Your task to perform on an android device: What's the news in Puerto Rico? Image 0: 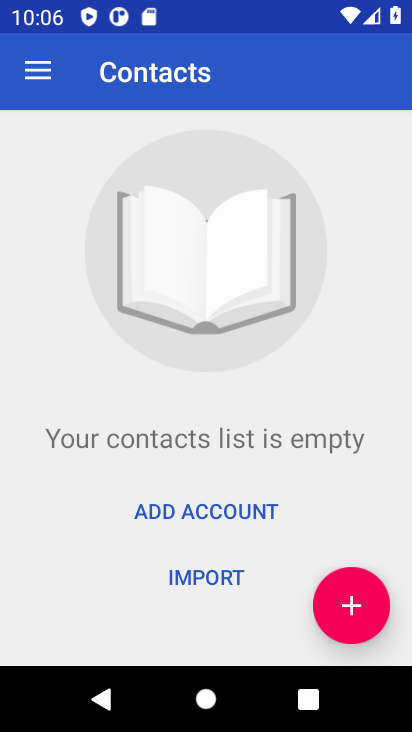
Step 0: press home button
Your task to perform on an android device: What's the news in Puerto Rico? Image 1: 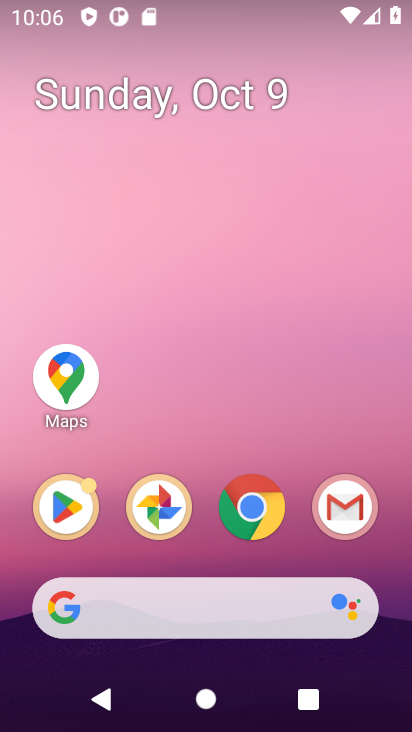
Step 1: drag from (218, 558) to (223, 96)
Your task to perform on an android device: What's the news in Puerto Rico? Image 2: 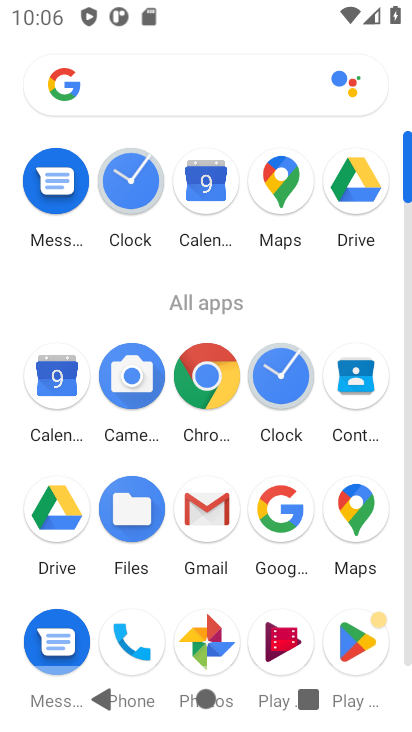
Step 2: click (215, 376)
Your task to perform on an android device: What's the news in Puerto Rico? Image 3: 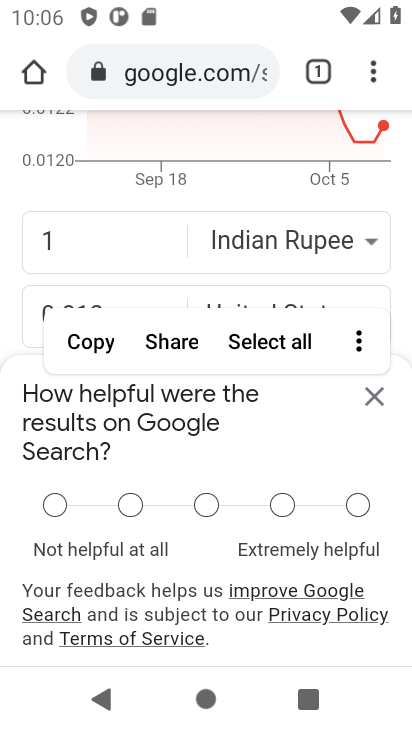
Step 3: drag from (258, 180) to (183, 543)
Your task to perform on an android device: What's the news in Puerto Rico? Image 4: 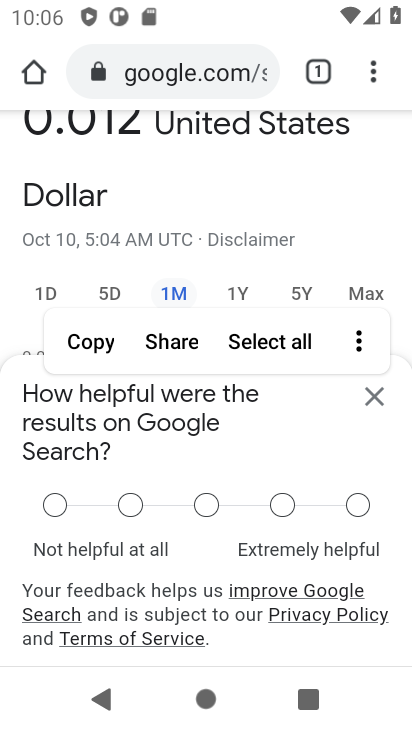
Step 4: click (146, 71)
Your task to perform on an android device: What's the news in Puerto Rico? Image 5: 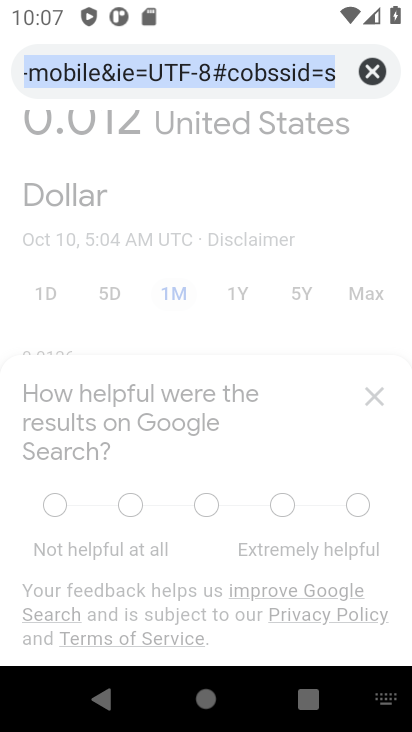
Step 5: type "What's the news in Puerto Rico?"
Your task to perform on an android device: What's the news in Puerto Rico? Image 6: 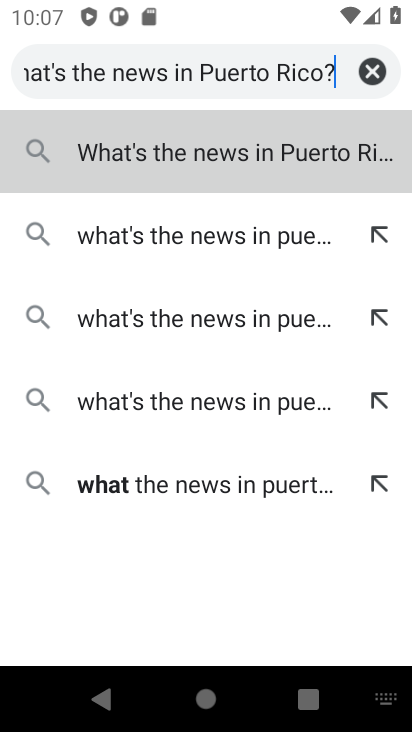
Step 6: press enter
Your task to perform on an android device: What's the news in Puerto Rico? Image 7: 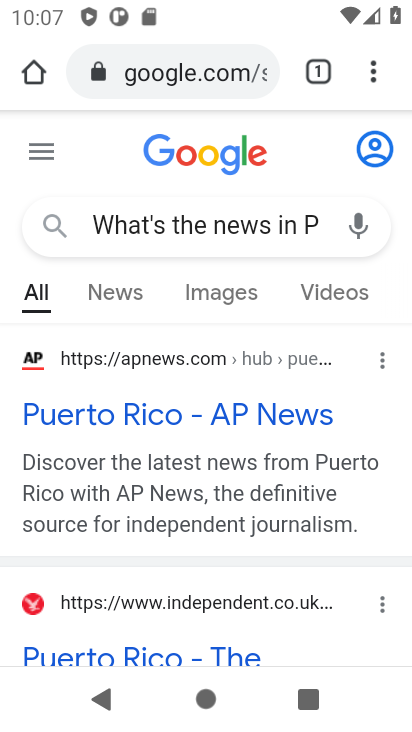
Step 7: click (239, 407)
Your task to perform on an android device: What's the news in Puerto Rico? Image 8: 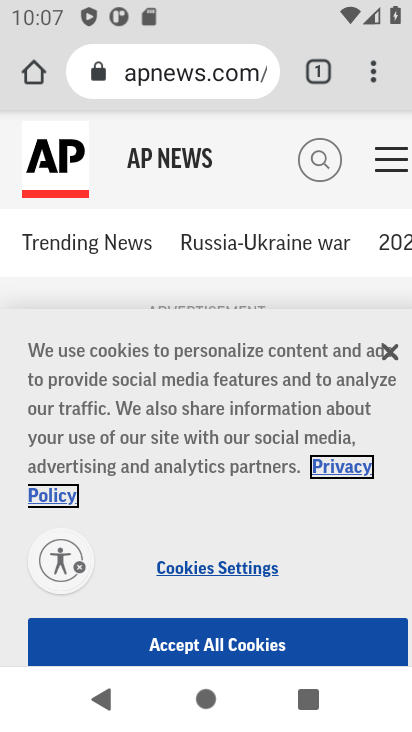
Step 8: drag from (197, 269) to (307, 46)
Your task to perform on an android device: What's the news in Puerto Rico? Image 9: 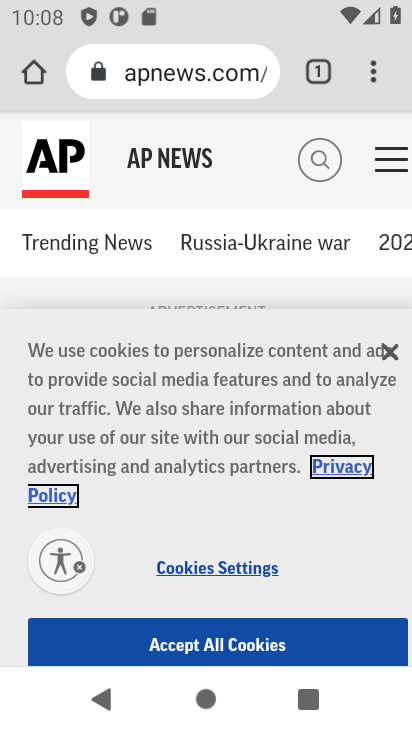
Step 9: click (385, 348)
Your task to perform on an android device: What's the news in Puerto Rico? Image 10: 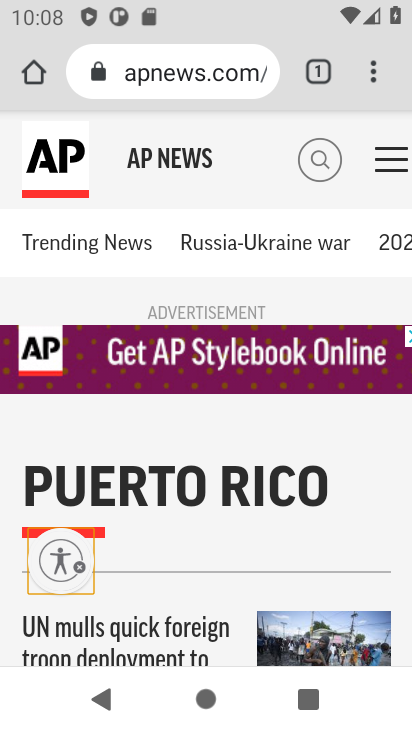
Step 10: task complete